Your task to perform on an android device: Open Maps and search for coffee Image 0: 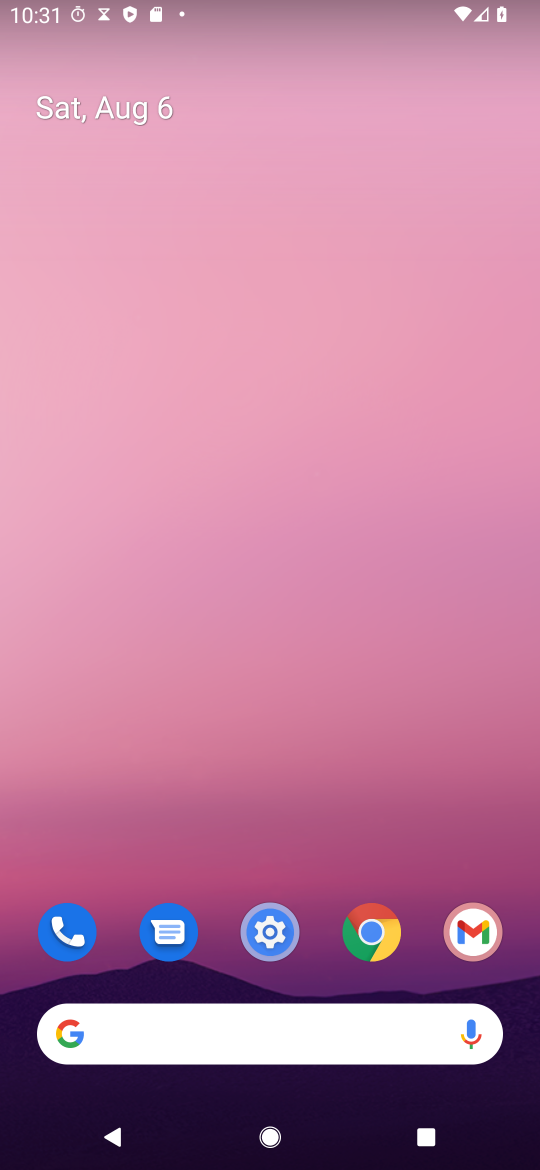
Step 0: drag from (253, 1025) to (440, 549)
Your task to perform on an android device: Open Maps and search for coffee Image 1: 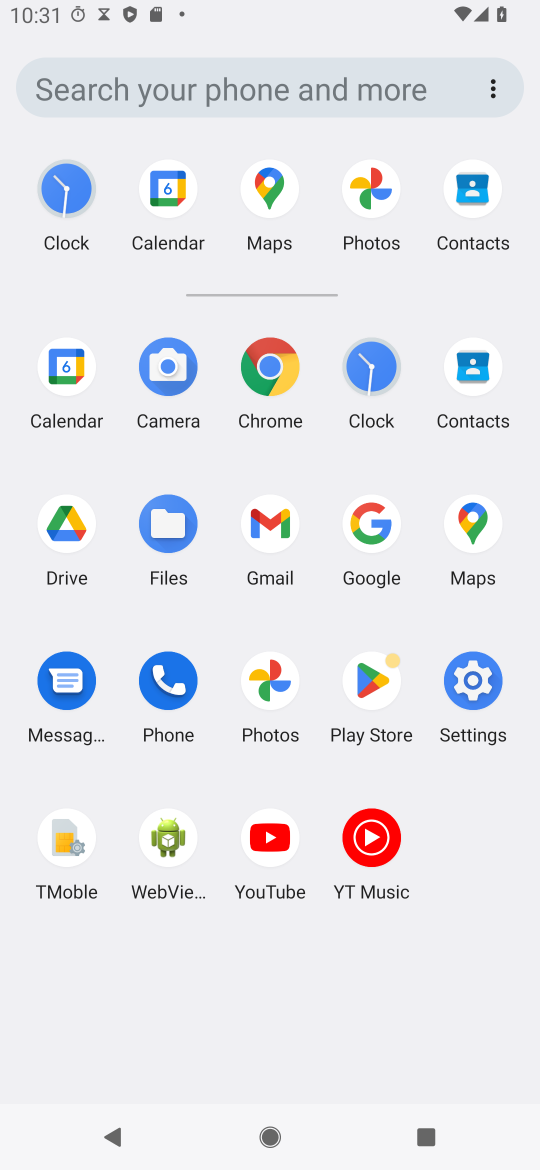
Step 1: click (471, 520)
Your task to perform on an android device: Open Maps and search for coffee Image 2: 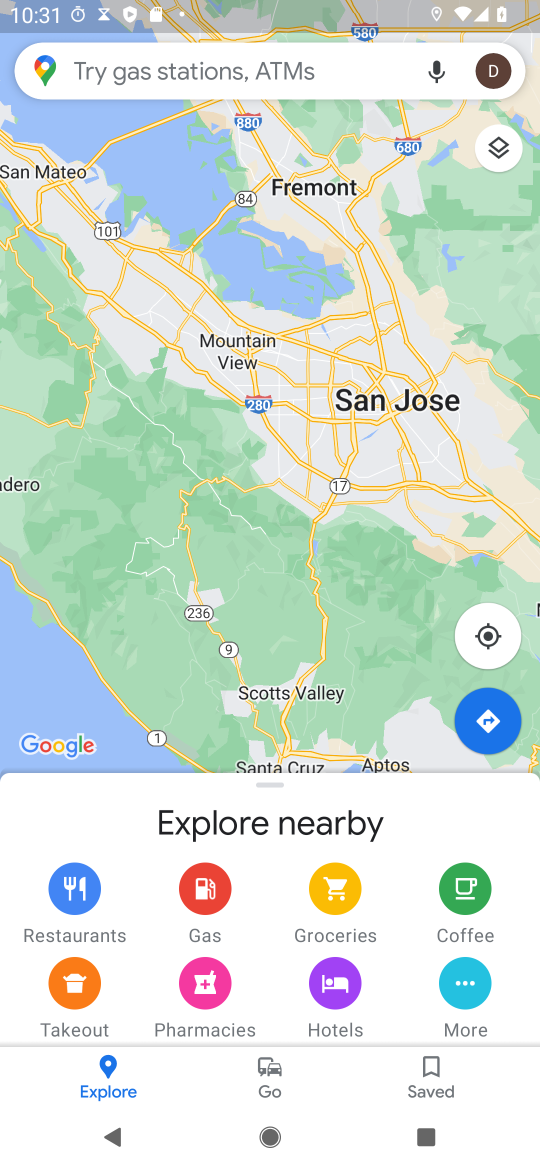
Step 2: click (227, 66)
Your task to perform on an android device: Open Maps and search for coffee Image 3: 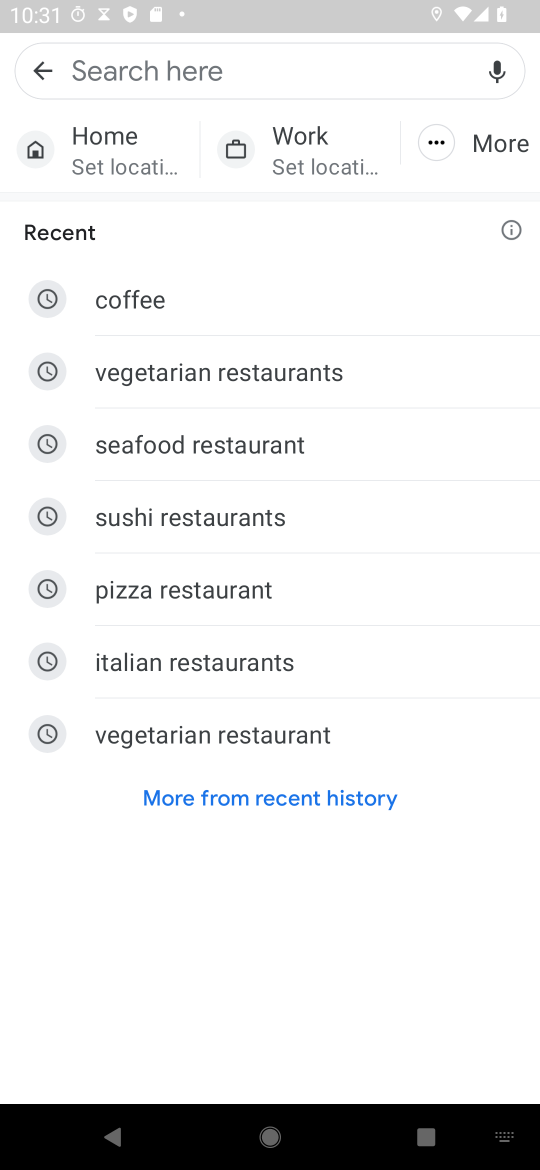
Step 3: click (147, 296)
Your task to perform on an android device: Open Maps and search for coffee Image 4: 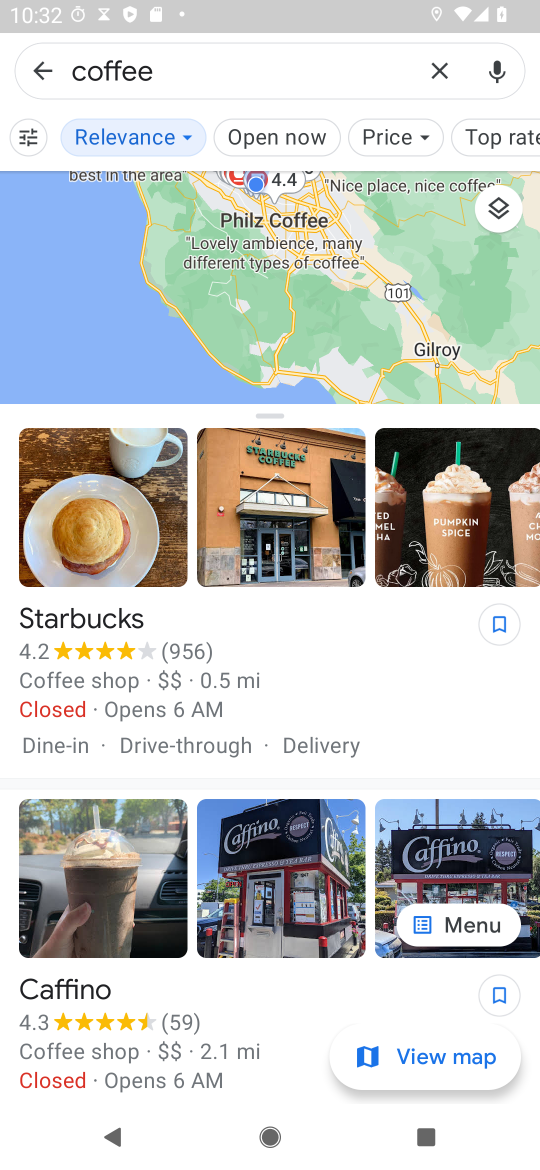
Step 4: task complete